Your task to perform on an android device: Open Google Chrome and open the bookmarks view Image 0: 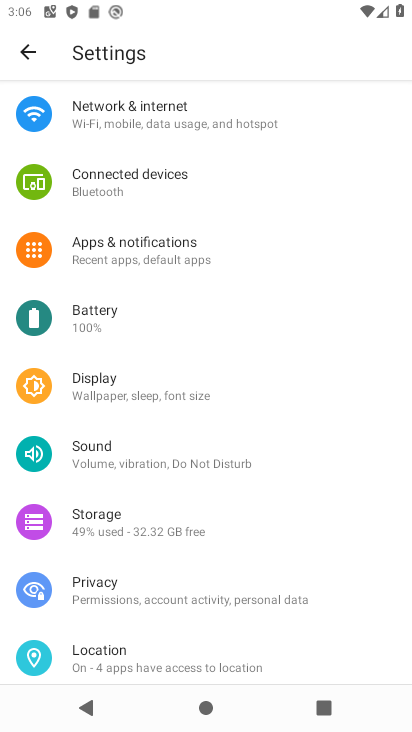
Step 0: press home button
Your task to perform on an android device: Open Google Chrome and open the bookmarks view Image 1: 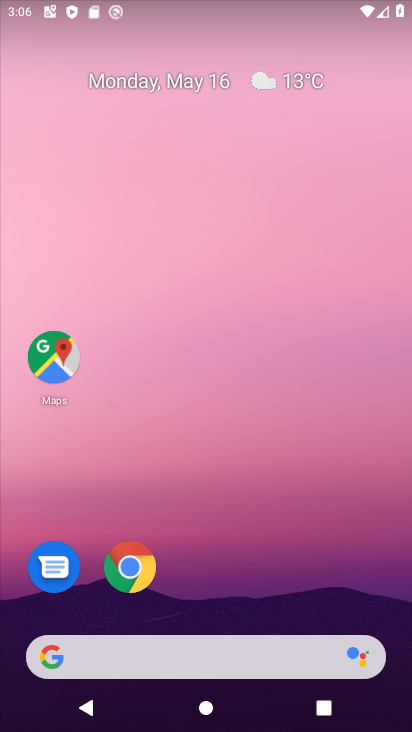
Step 1: drag from (268, 567) to (314, 0)
Your task to perform on an android device: Open Google Chrome and open the bookmarks view Image 2: 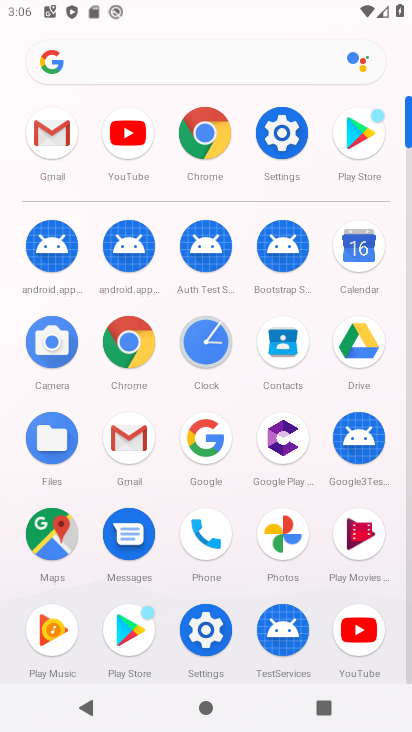
Step 2: click (221, 140)
Your task to perform on an android device: Open Google Chrome and open the bookmarks view Image 3: 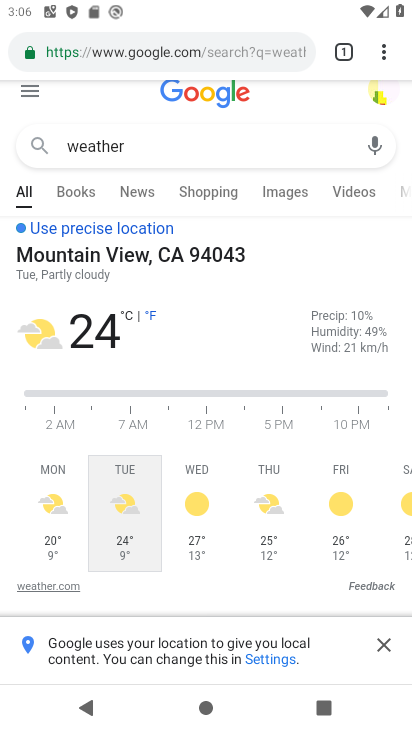
Step 3: task complete